Your task to perform on an android device: turn smart compose on in the gmail app Image 0: 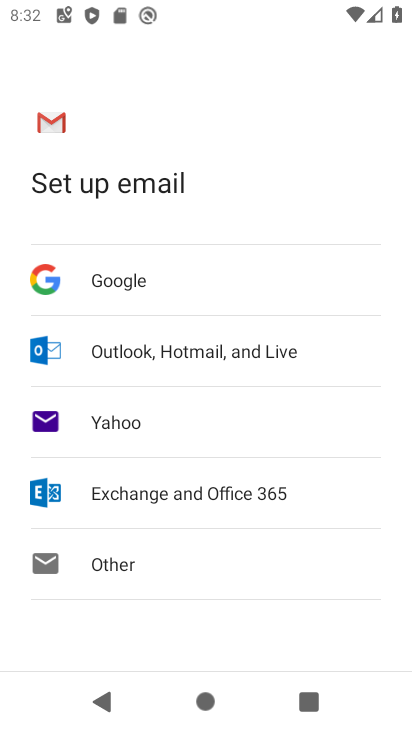
Step 0: press home button
Your task to perform on an android device: turn smart compose on in the gmail app Image 1: 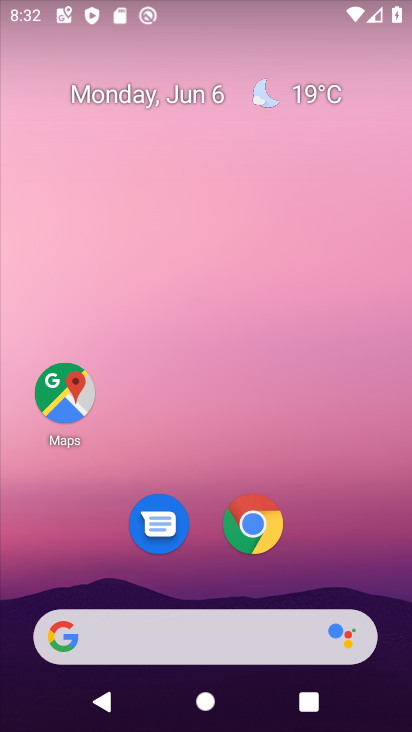
Step 1: drag from (320, 534) to (332, 38)
Your task to perform on an android device: turn smart compose on in the gmail app Image 2: 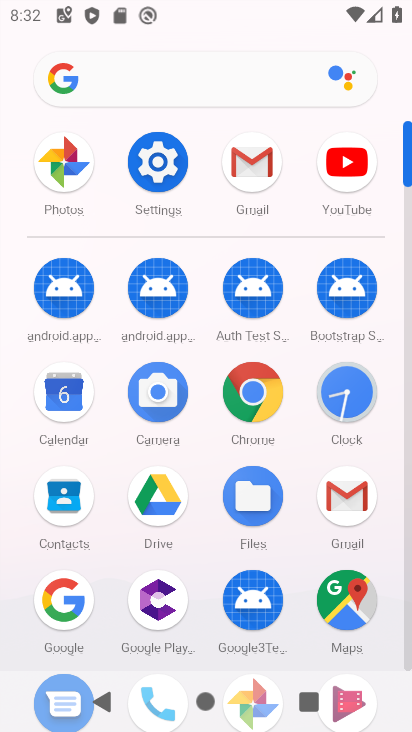
Step 2: click (258, 178)
Your task to perform on an android device: turn smart compose on in the gmail app Image 3: 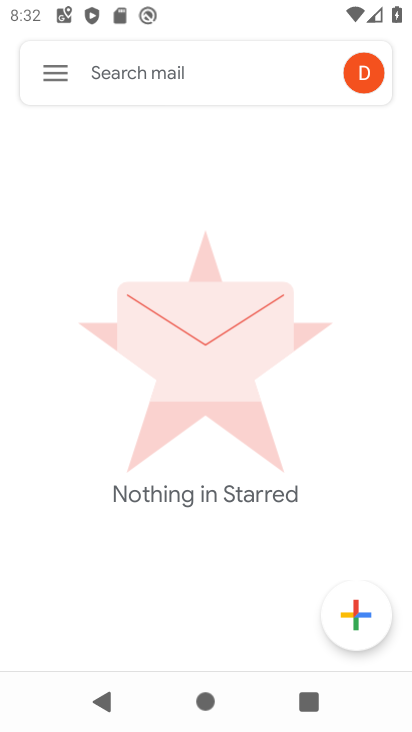
Step 3: click (62, 66)
Your task to perform on an android device: turn smart compose on in the gmail app Image 4: 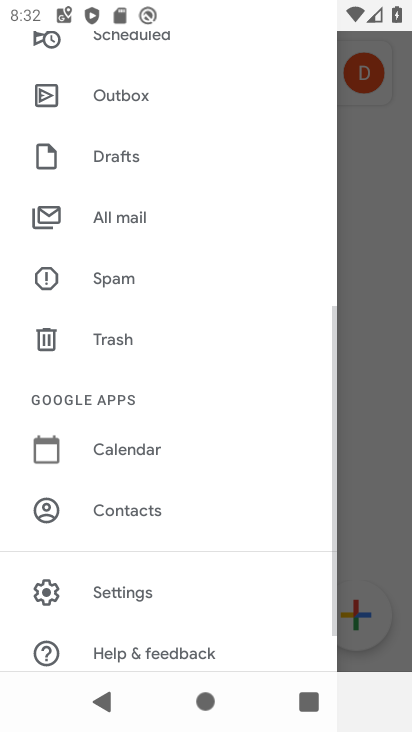
Step 4: click (132, 579)
Your task to perform on an android device: turn smart compose on in the gmail app Image 5: 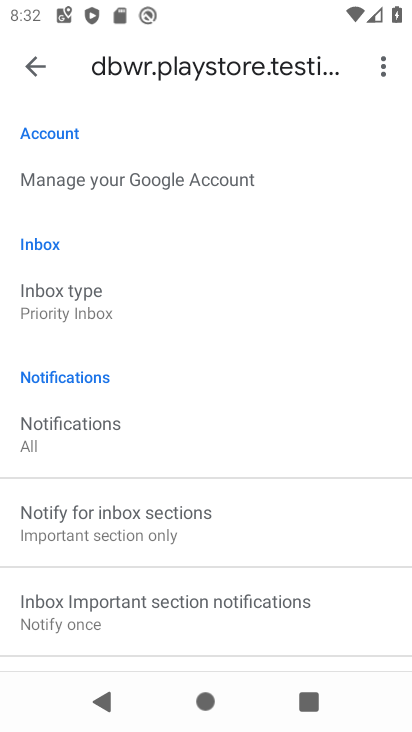
Step 5: task complete